Your task to perform on an android device: open a bookmark in the chrome app Image 0: 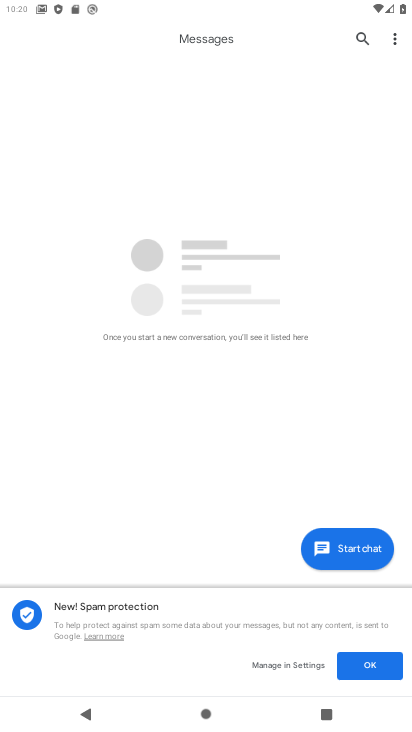
Step 0: press home button
Your task to perform on an android device: open a bookmark in the chrome app Image 1: 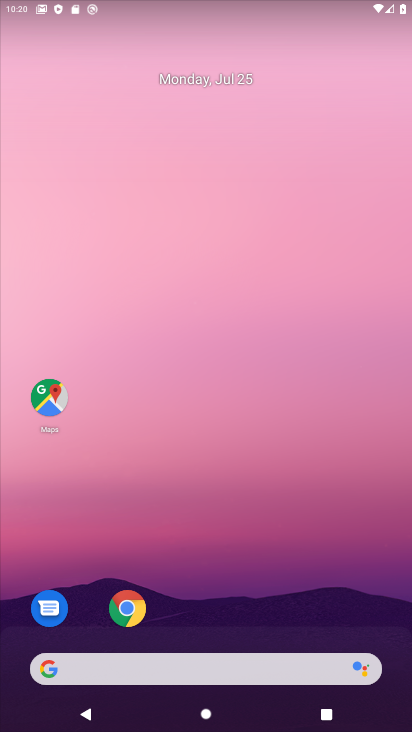
Step 1: drag from (244, 288) to (263, 156)
Your task to perform on an android device: open a bookmark in the chrome app Image 2: 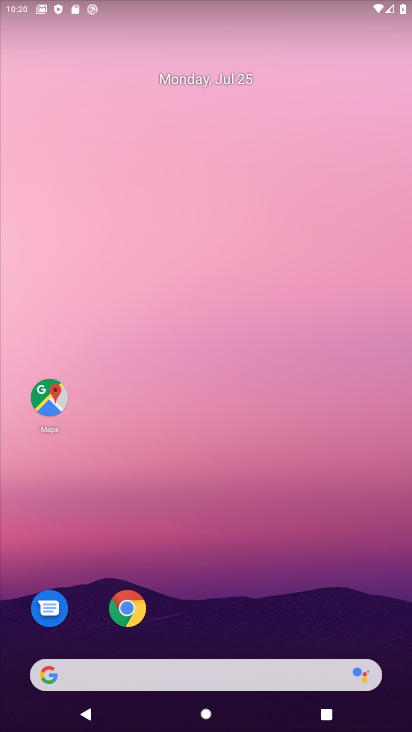
Step 2: click (129, 614)
Your task to perform on an android device: open a bookmark in the chrome app Image 3: 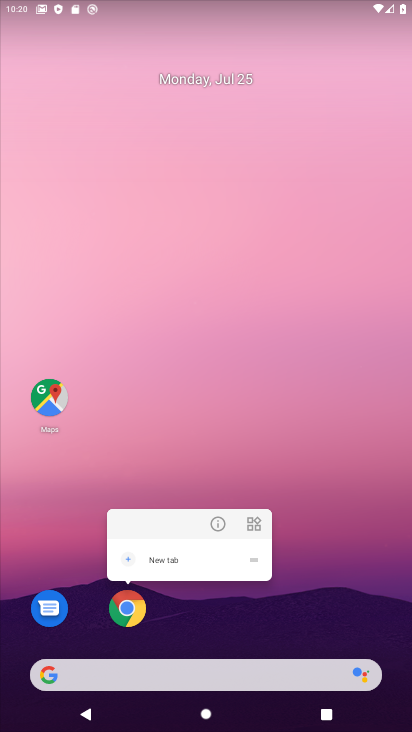
Step 3: click (127, 607)
Your task to perform on an android device: open a bookmark in the chrome app Image 4: 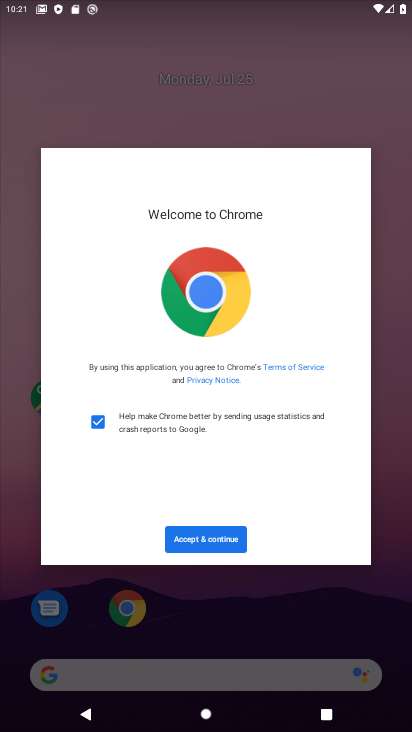
Step 4: click (212, 541)
Your task to perform on an android device: open a bookmark in the chrome app Image 5: 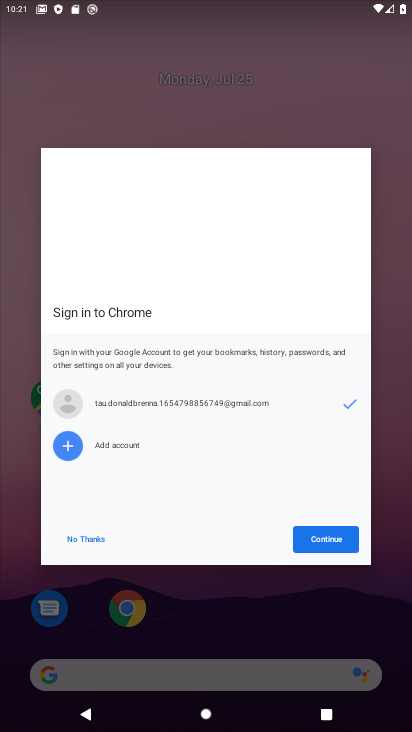
Step 5: click (334, 544)
Your task to perform on an android device: open a bookmark in the chrome app Image 6: 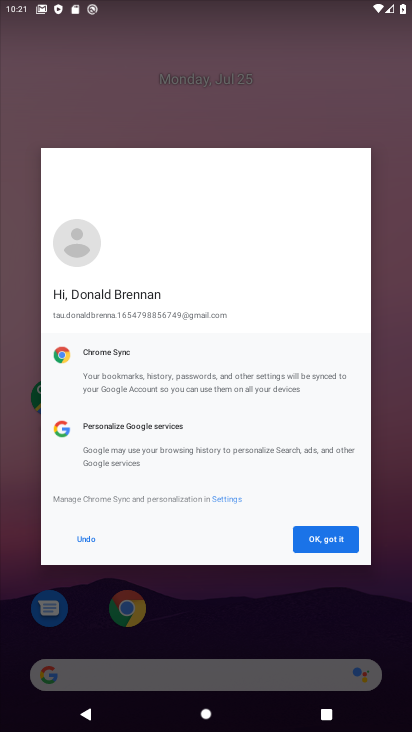
Step 6: click (344, 542)
Your task to perform on an android device: open a bookmark in the chrome app Image 7: 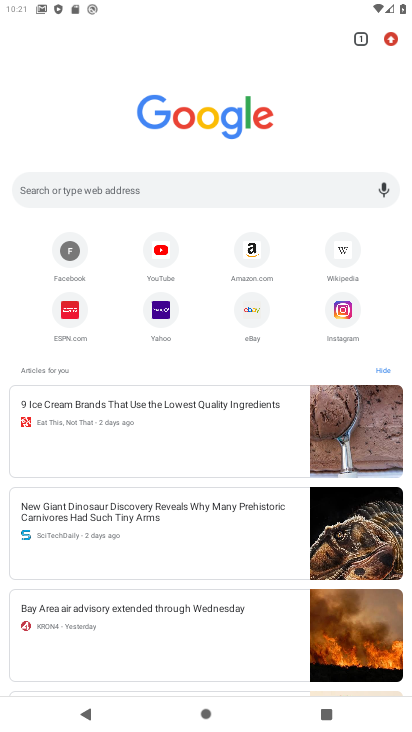
Step 7: click (391, 42)
Your task to perform on an android device: open a bookmark in the chrome app Image 8: 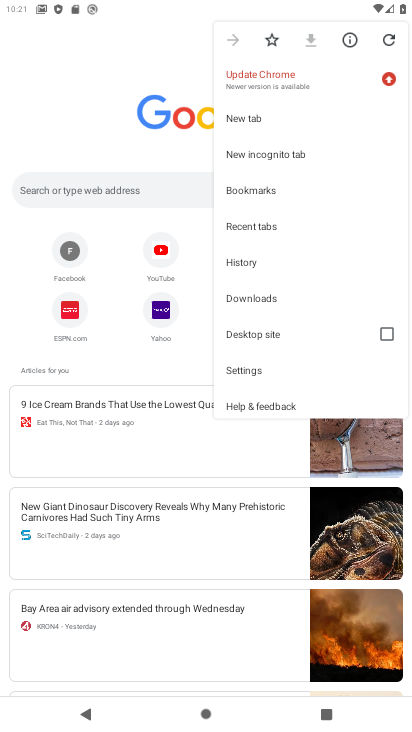
Step 8: click (265, 192)
Your task to perform on an android device: open a bookmark in the chrome app Image 9: 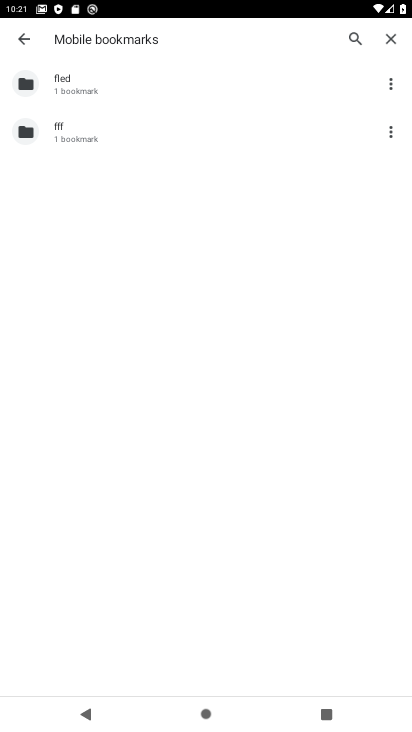
Step 9: click (95, 87)
Your task to perform on an android device: open a bookmark in the chrome app Image 10: 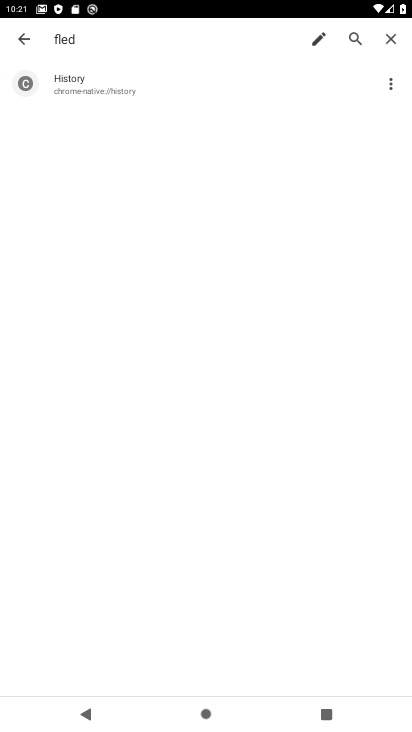
Step 10: click (102, 75)
Your task to perform on an android device: open a bookmark in the chrome app Image 11: 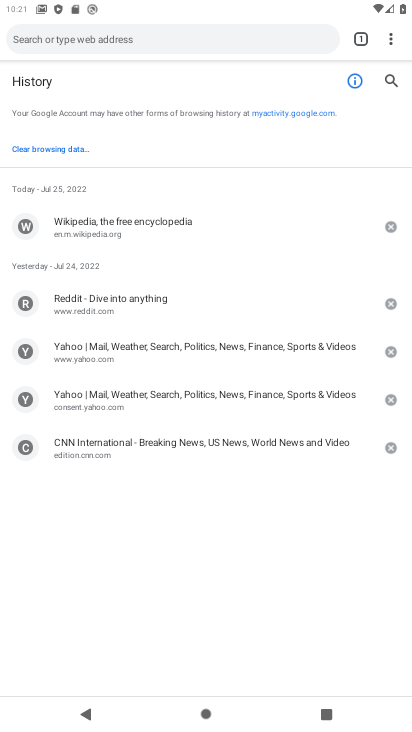
Step 11: task complete